Your task to perform on an android device: Open my contact list Image 0: 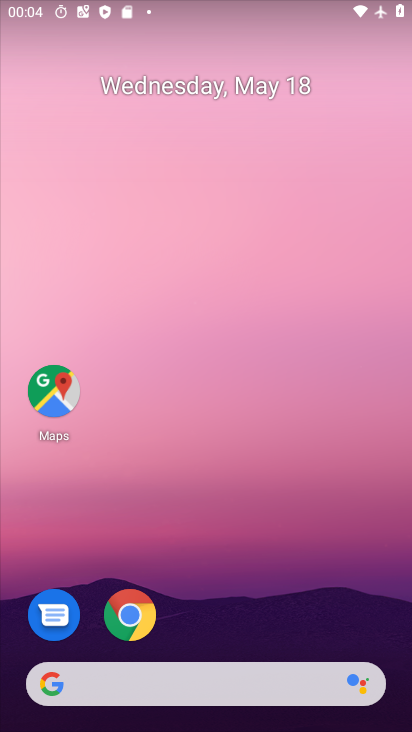
Step 0: drag from (228, 634) to (232, 178)
Your task to perform on an android device: Open my contact list Image 1: 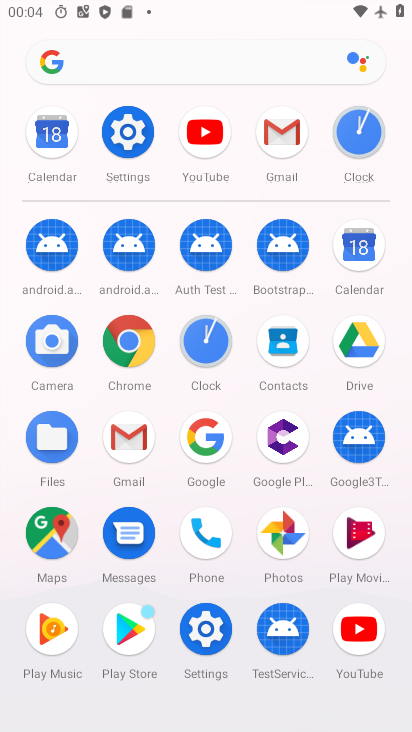
Step 1: click (283, 358)
Your task to perform on an android device: Open my contact list Image 2: 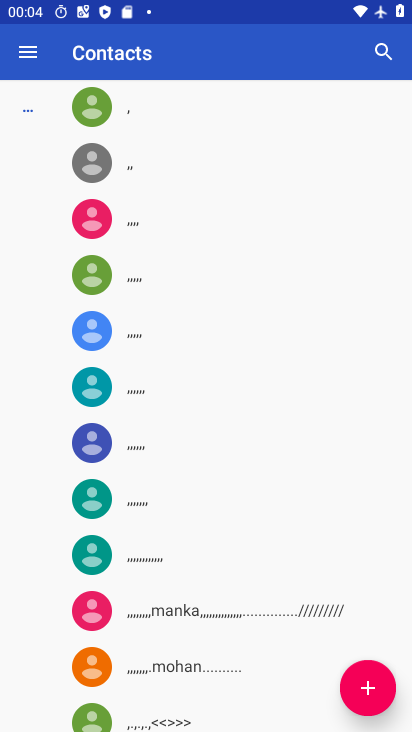
Step 2: task complete